Your task to perform on an android device: Open the Play Movies app and select the watchlist tab. Image 0: 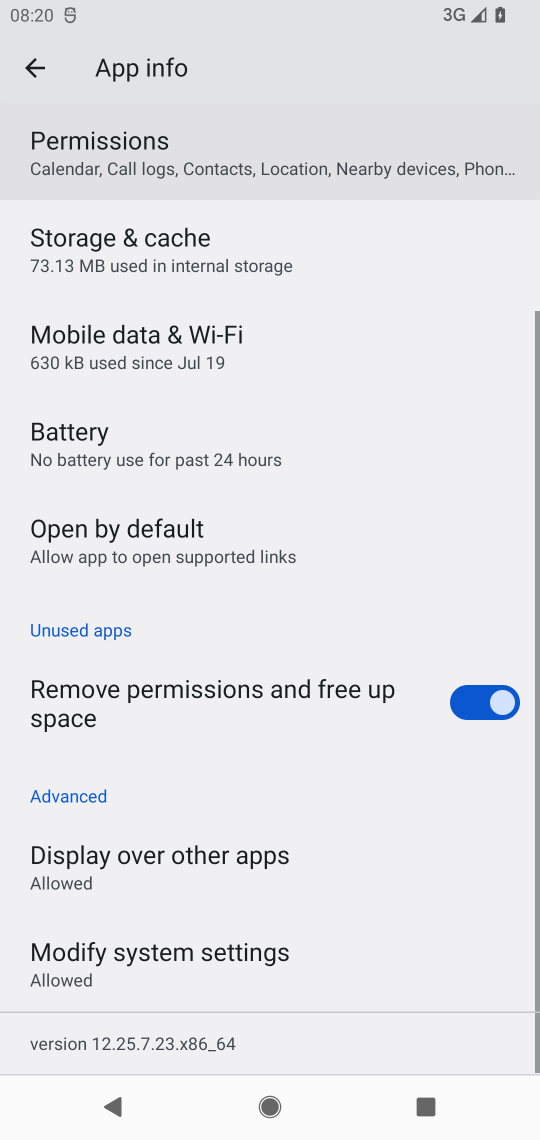
Step 0: press home button
Your task to perform on an android device: Open the Play Movies app and select the watchlist tab. Image 1: 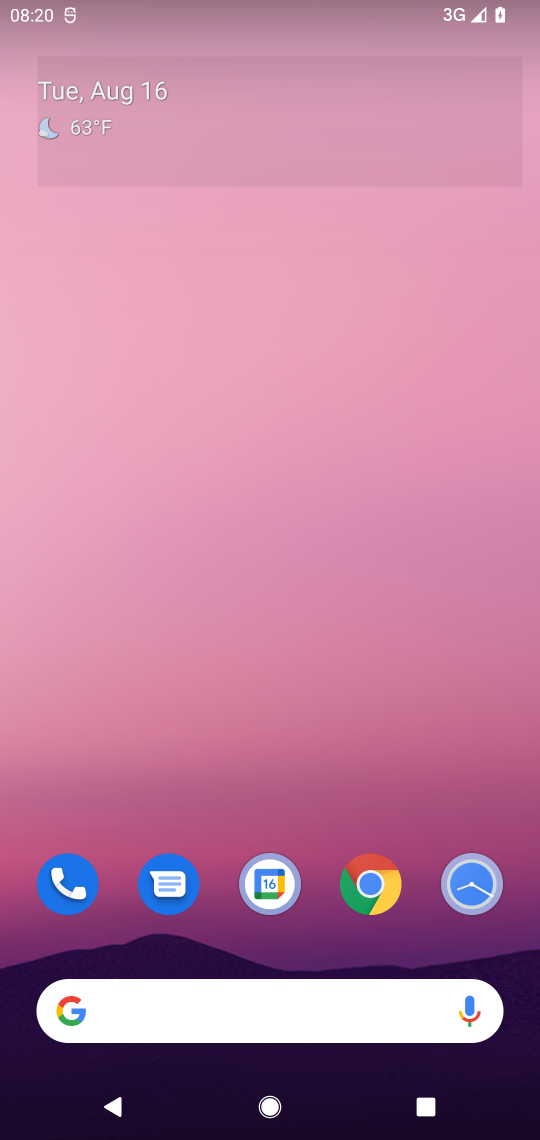
Step 1: task complete